Your task to perform on an android device: turn on showing notifications on the lock screen Image 0: 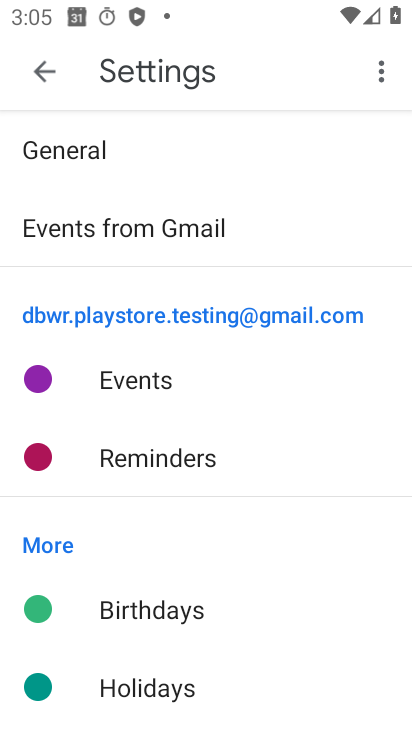
Step 0: press back button
Your task to perform on an android device: turn on showing notifications on the lock screen Image 1: 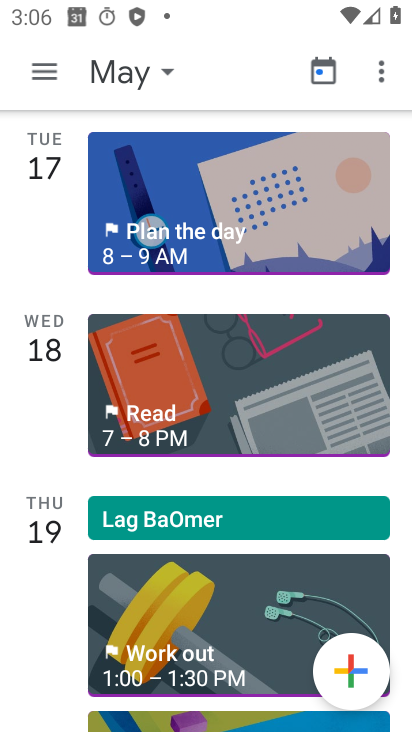
Step 1: press home button
Your task to perform on an android device: turn on showing notifications on the lock screen Image 2: 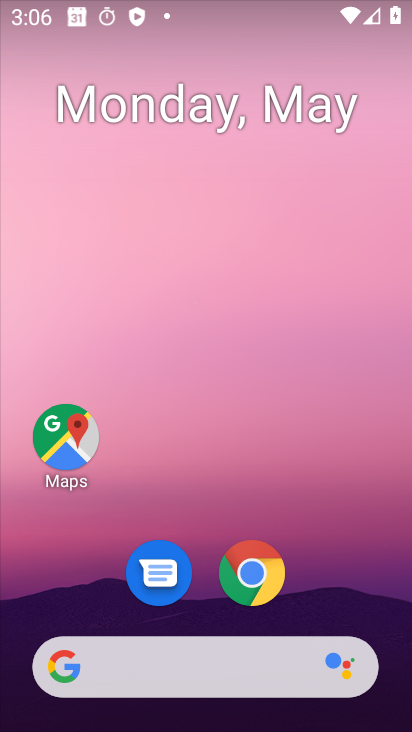
Step 2: drag from (293, 622) to (90, 25)
Your task to perform on an android device: turn on showing notifications on the lock screen Image 3: 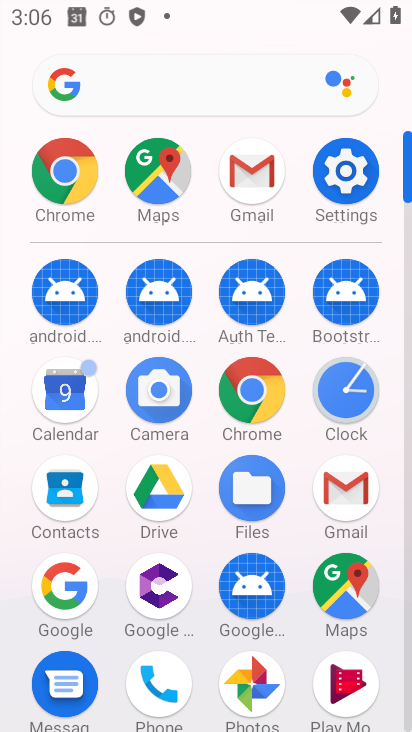
Step 3: click (320, 171)
Your task to perform on an android device: turn on showing notifications on the lock screen Image 4: 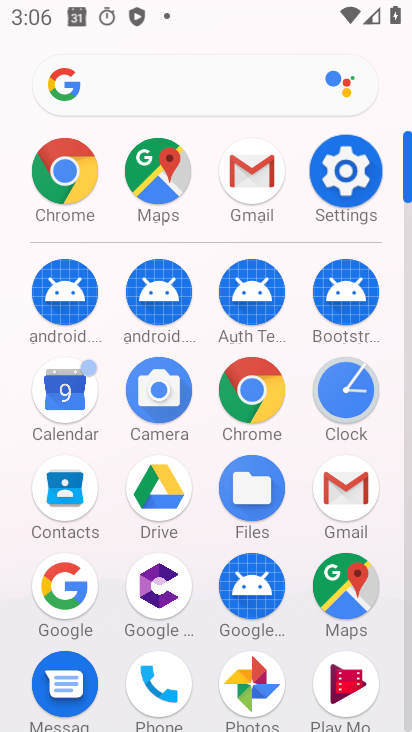
Step 4: click (331, 169)
Your task to perform on an android device: turn on showing notifications on the lock screen Image 5: 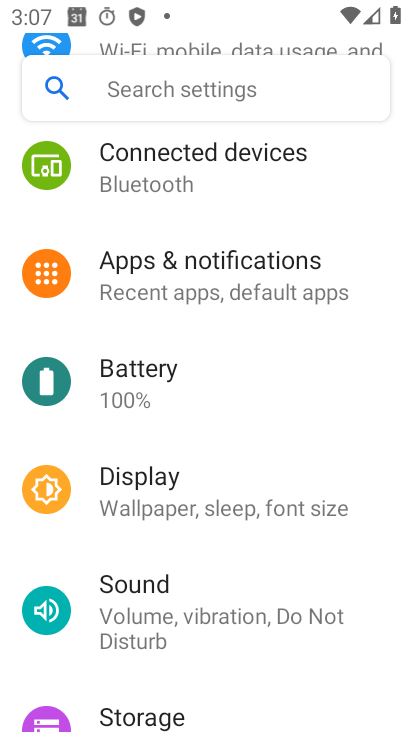
Step 5: click (167, 267)
Your task to perform on an android device: turn on showing notifications on the lock screen Image 6: 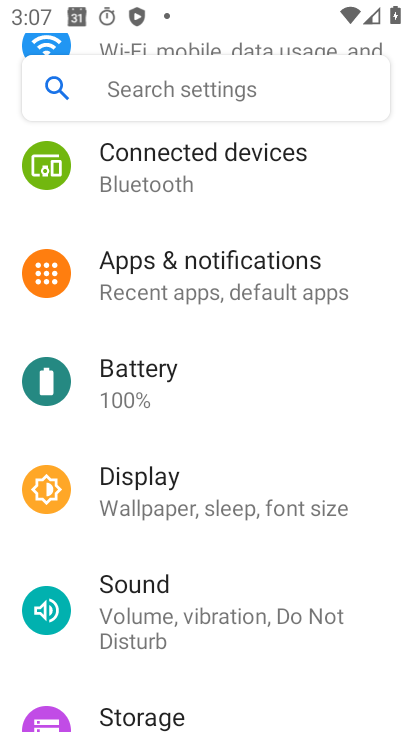
Step 6: click (169, 266)
Your task to perform on an android device: turn on showing notifications on the lock screen Image 7: 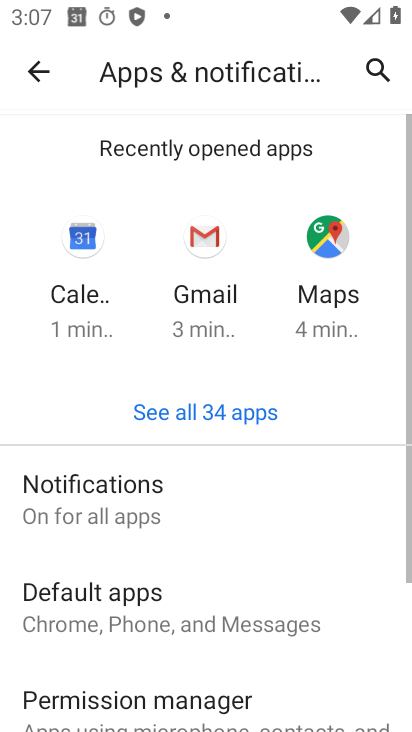
Step 7: click (198, 280)
Your task to perform on an android device: turn on showing notifications on the lock screen Image 8: 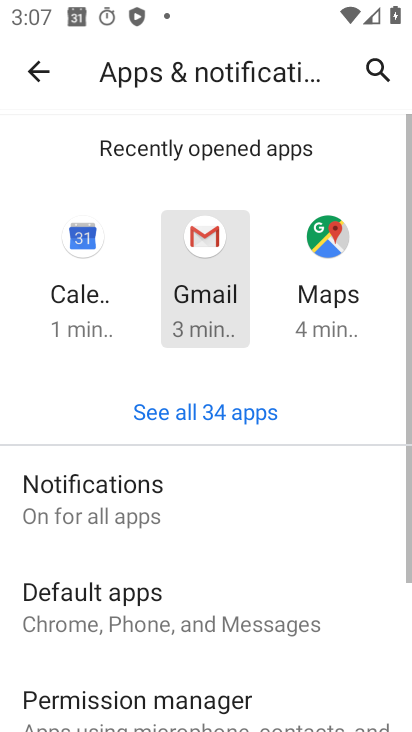
Step 8: click (198, 280)
Your task to perform on an android device: turn on showing notifications on the lock screen Image 9: 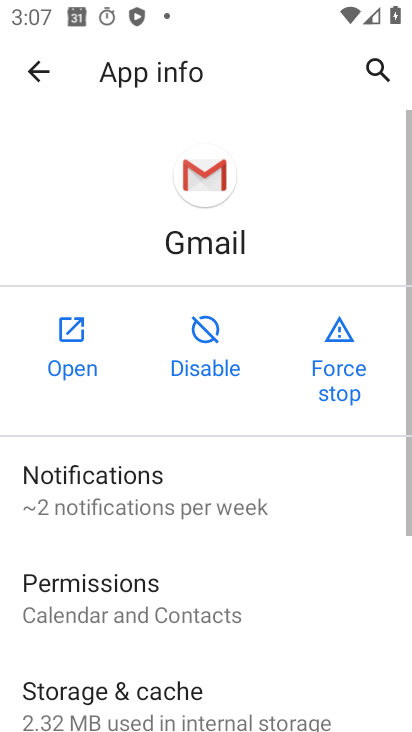
Step 9: click (101, 478)
Your task to perform on an android device: turn on showing notifications on the lock screen Image 10: 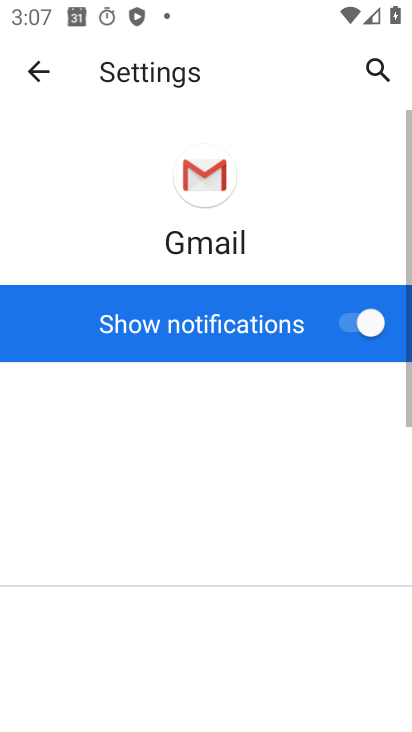
Step 10: click (31, 64)
Your task to perform on an android device: turn on showing notifications on the lock screen Image 11: 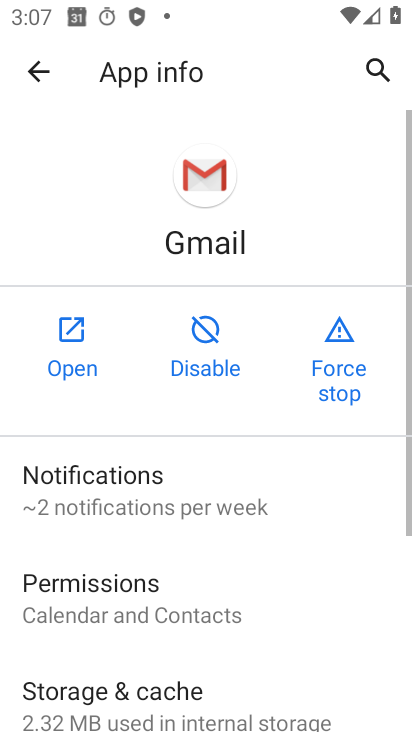
Step 11: click (36, 71)
Your task to perform on an android device: turn on showing notifications on the lock screen Image 12: 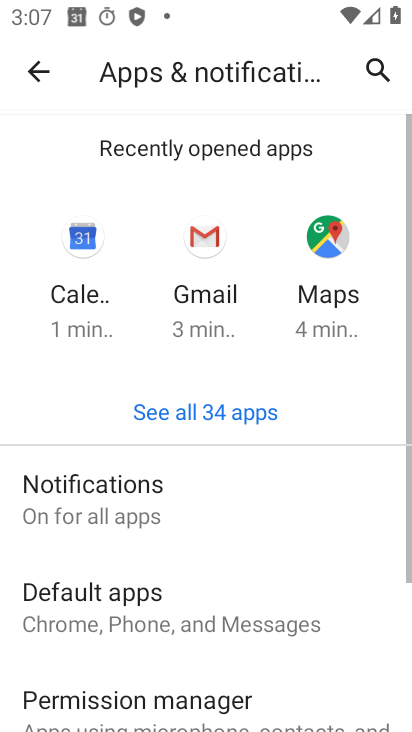
Step 12: click (100, 496)
Your task to perform on an android device: turn on showing notifications on the lock screen Image 13: 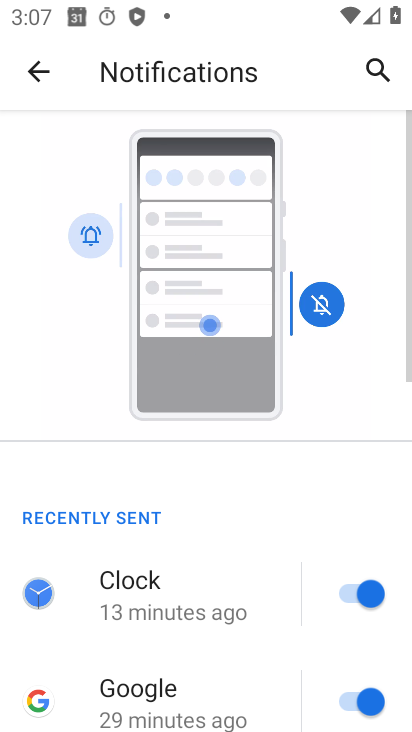
Step 13: drag from (159, 612) to (82, 151)
Your task to perform on an android device: turn on showing notifications on the lock screen Image 14: 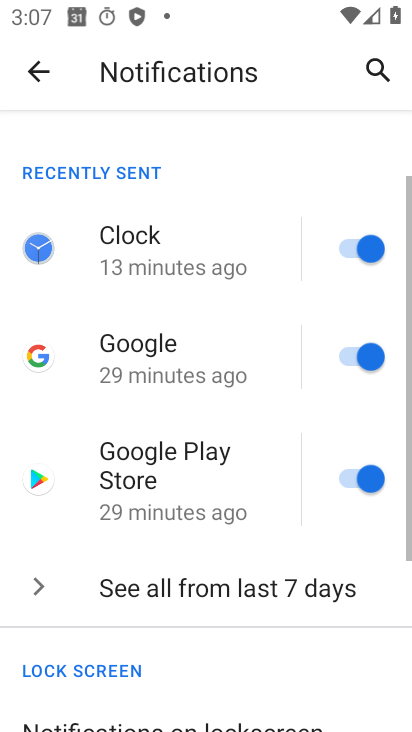
Step 14: drag from (271, 564) to (235, 159)
Your task to perform on an android device: turn on showing notifications on the lock screen Image 15: 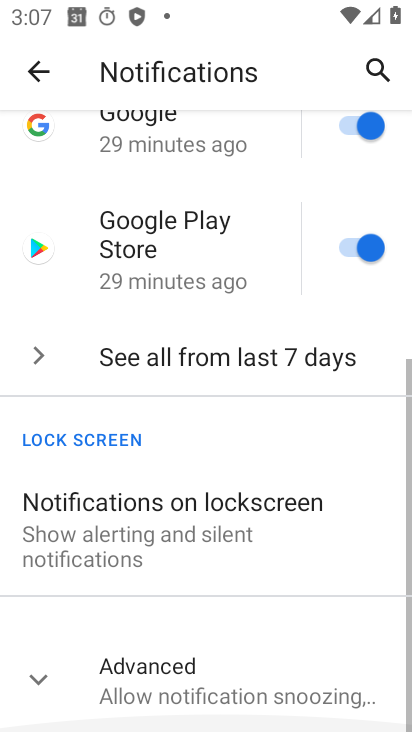
Step 15: drag from (272, 549) to (294, 52)
Your task to perform on an android device: turn on showing notifications on the lock screen Image 16: 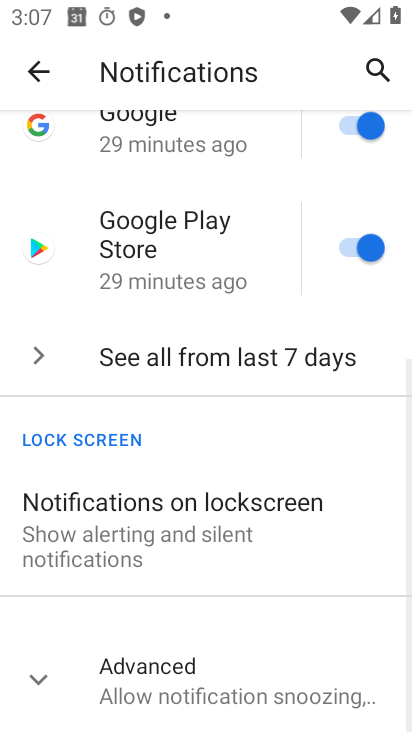
Step 16: click (126, 512)
Your task to perform on an android device: turn on showing notifications on the lock screen Image 17: 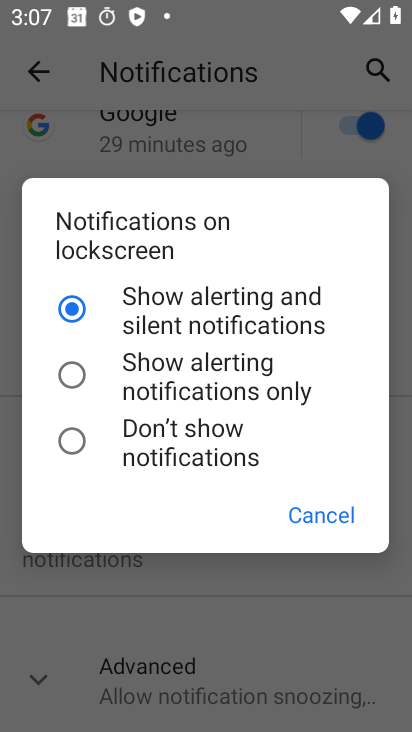
Step 17: click (323, 521)
Your task to perform on an android device: turn on showing notifications on the lock screen Image 18: 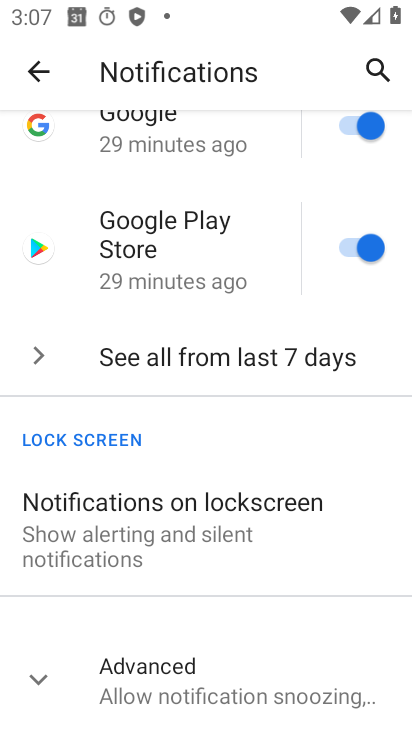
Step 18: task complete